Your task to perform on an android device: open sync settings in chrome Image 0: 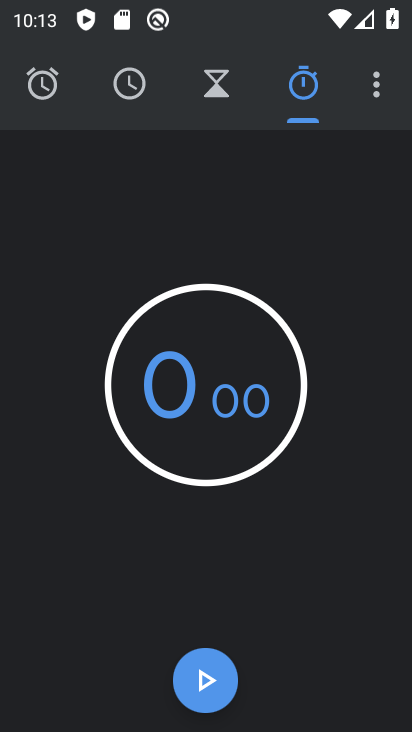
Step 0: press home button
Your task to perform on an android device: open sync settings in chrome Image 1: 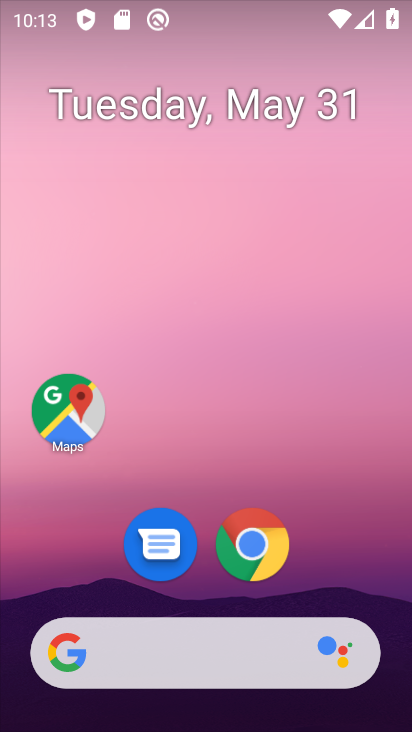
Step 1: click (233, 535)
Your task to perform on an android device: open sync settings in chrome Image 2: 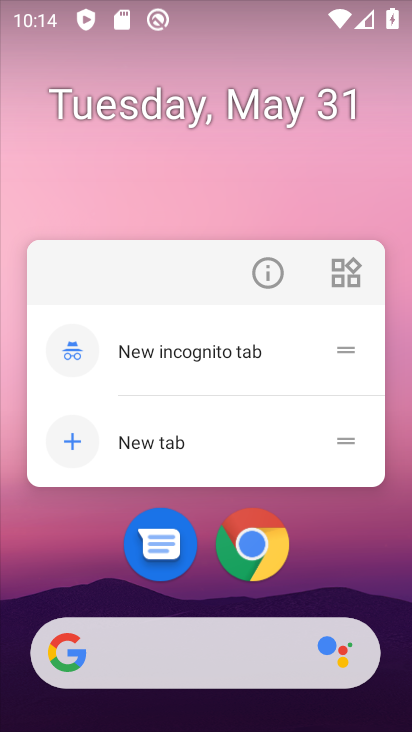
Step 2: click (252, 571)
Your task to perform on an android device: open sync settings in chrome Image 3: 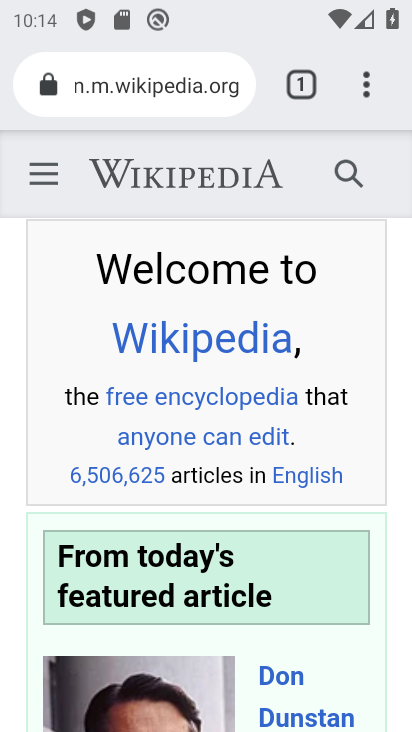
Step 3: drag from (363, 84) to (95, 588)
Your task to perform on an android device: open sync settings in chrome Image 4: 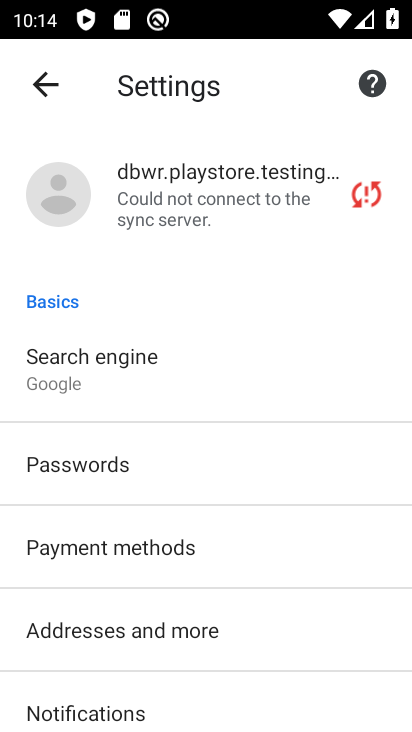
Step 4: click (174, 207)
Your task to perform on an android device: open sync settings in chrome Image 5: 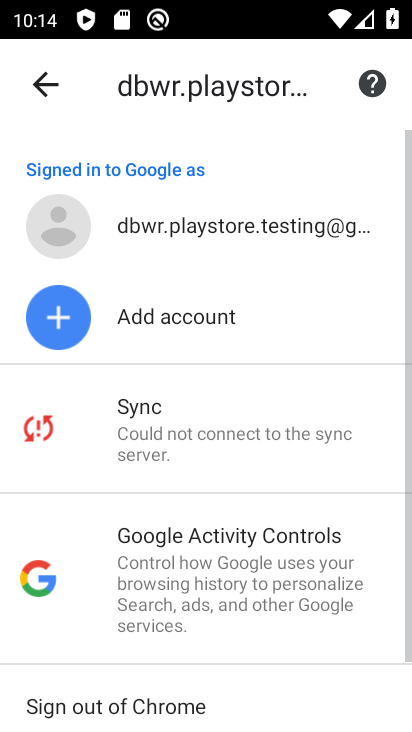
Step 5: click (184, 398)
Your task to perform on an android device: open sync settings in chrome Image 6: 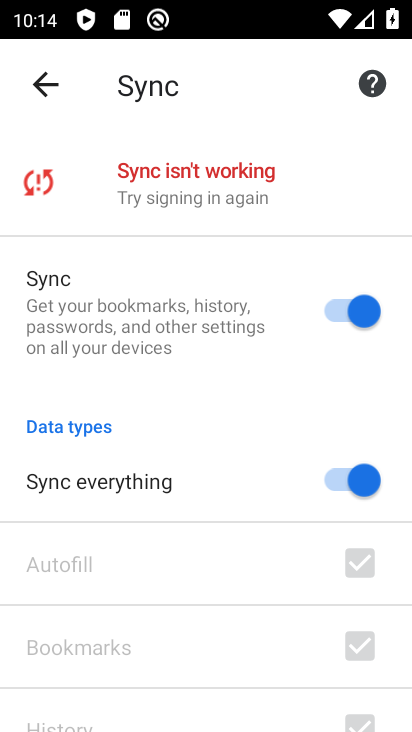
Step 6: task complete